Your task to perform on an android device: change the clock display to digital Image 0: 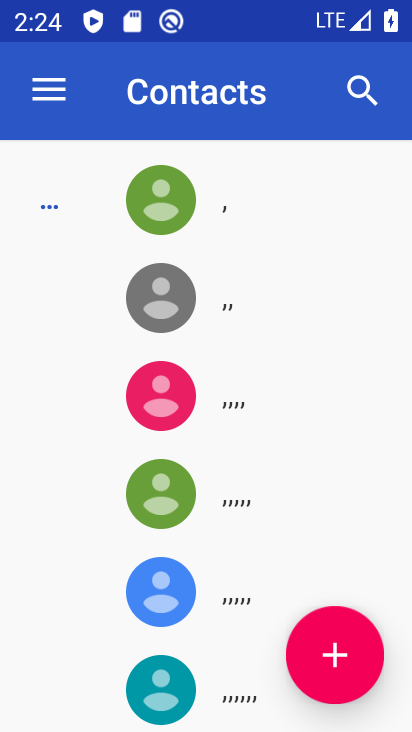
Step 0: press home button
Your task to perform on an android device: change the clock display to digital Image 1: 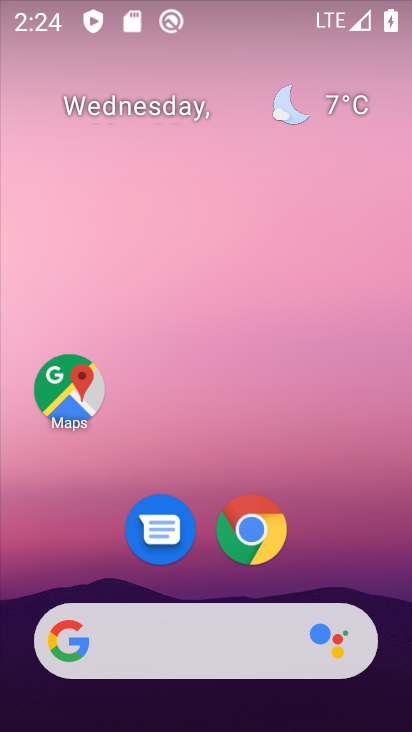
Step 1: drag from (365, 522) to (340, 124)
Your task to perform on an android device: change the clock display to digital Image 2: 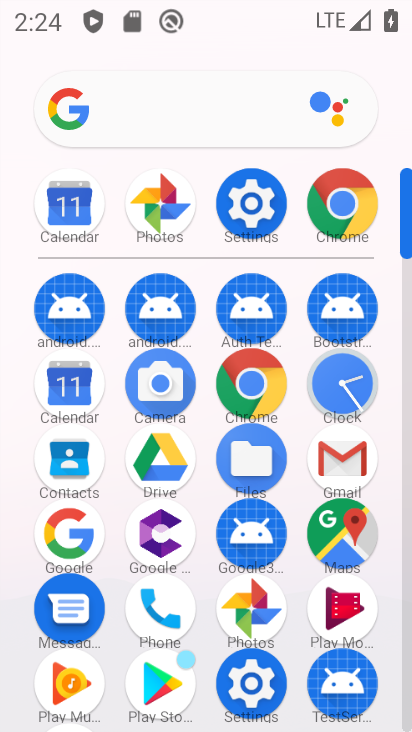
Step 2: click (339, 394)
Your task to perform on an android device: change the clock display to digital Image 3: 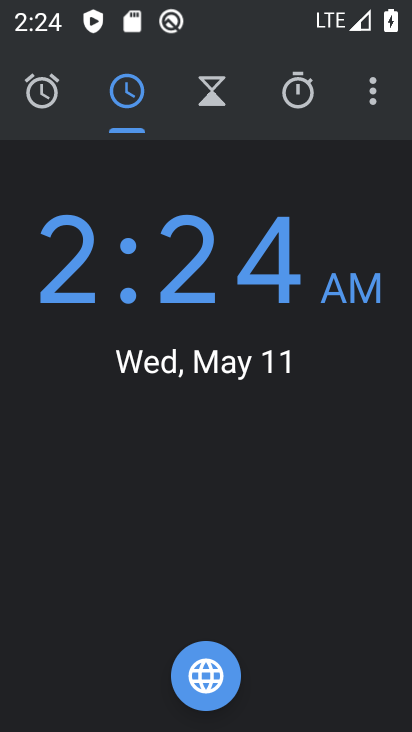
Step 3: click (370, 90)
Your task to perform on an android device: change the clock display to digital Image 4: 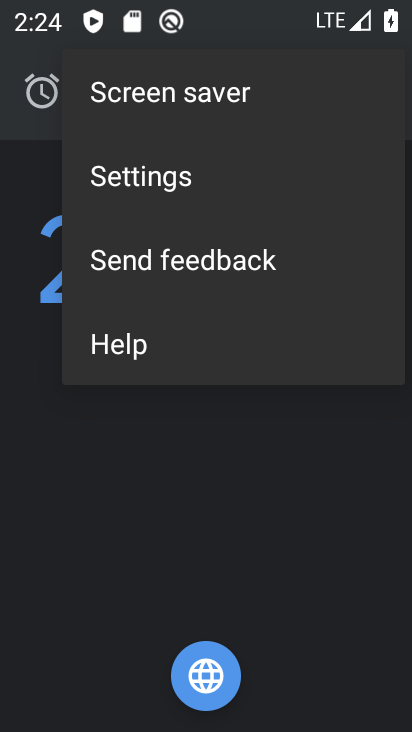
Step 4: click (128, 172)
Your task to perform on an android device: change the clock display to digital Image 5: 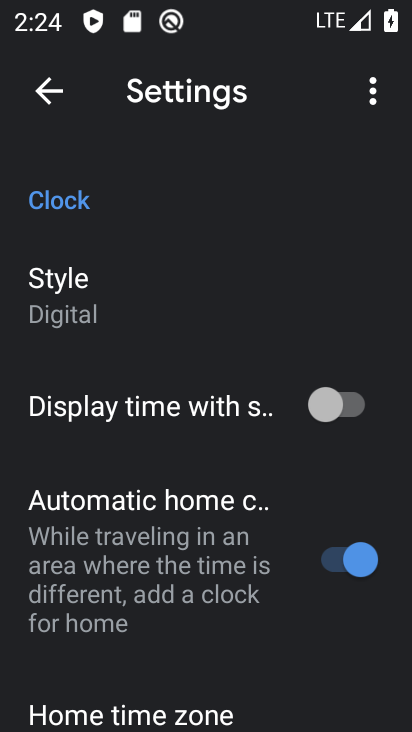
Step 5: task complete